Your task to perform on an android device: Add "corsair k70" to the cart on amazon Image 0: 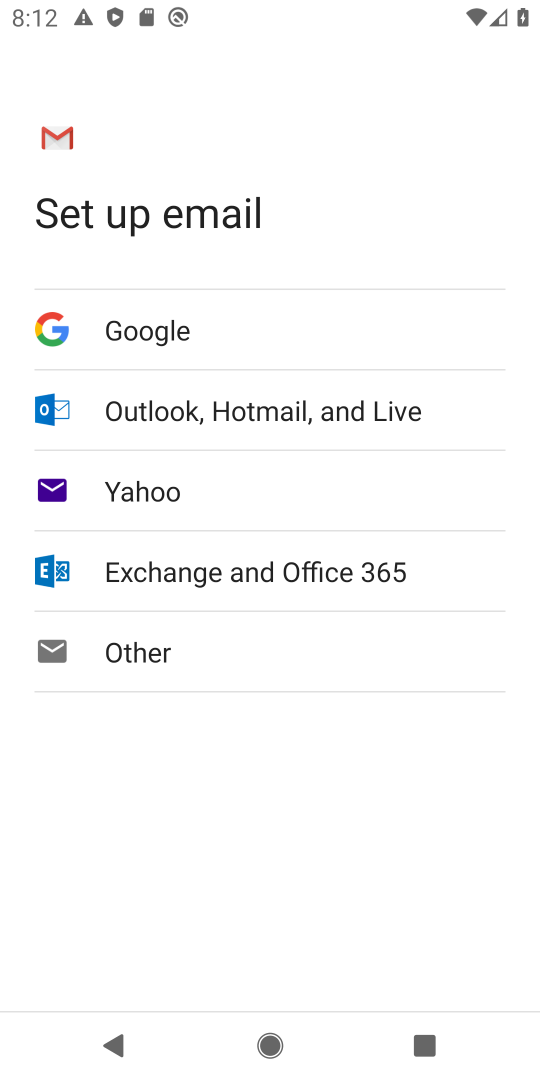
Step 0: press home button
Your task to perform on an android device: Add "corsair k70" to the cart on amazon Image 1: 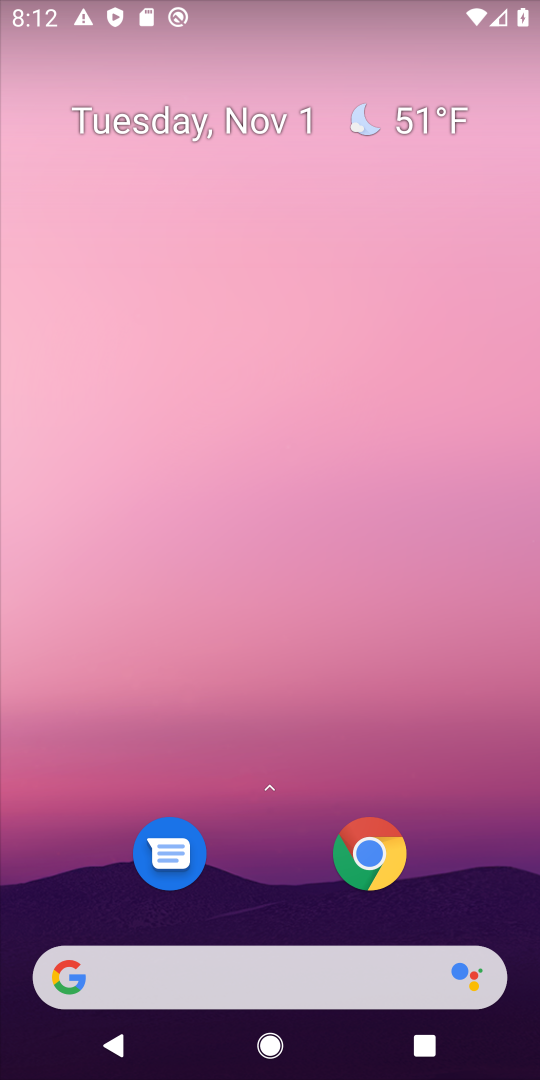
Step 1: click (296, 978)
Your task to perform on an android device: Add "corsair k70" to the cart on amazon Image 2: 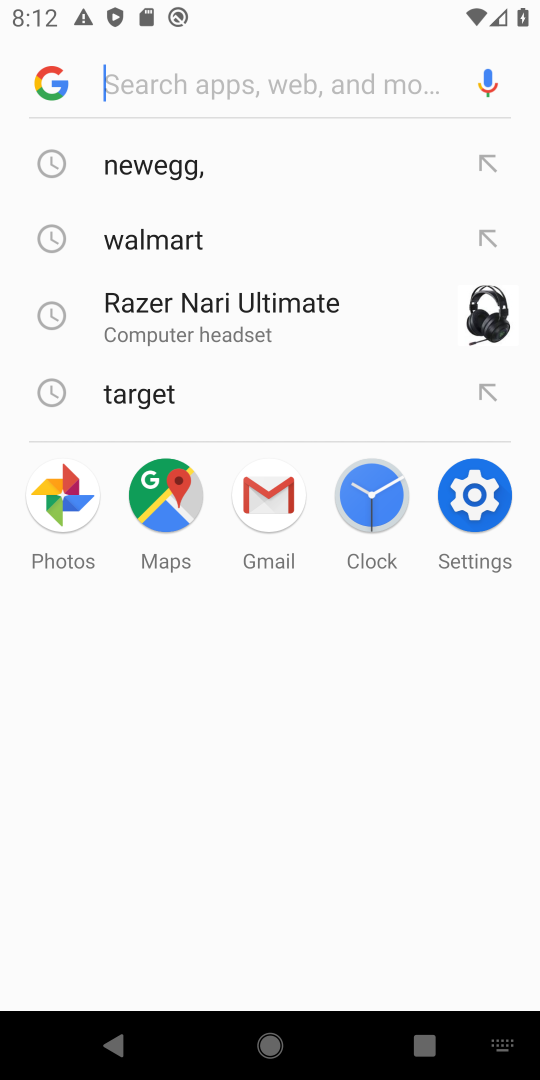
Step 2: type "amazon"
Your task to perform on an android device: Add "corsair k70" to the cart on amazon Image 3: 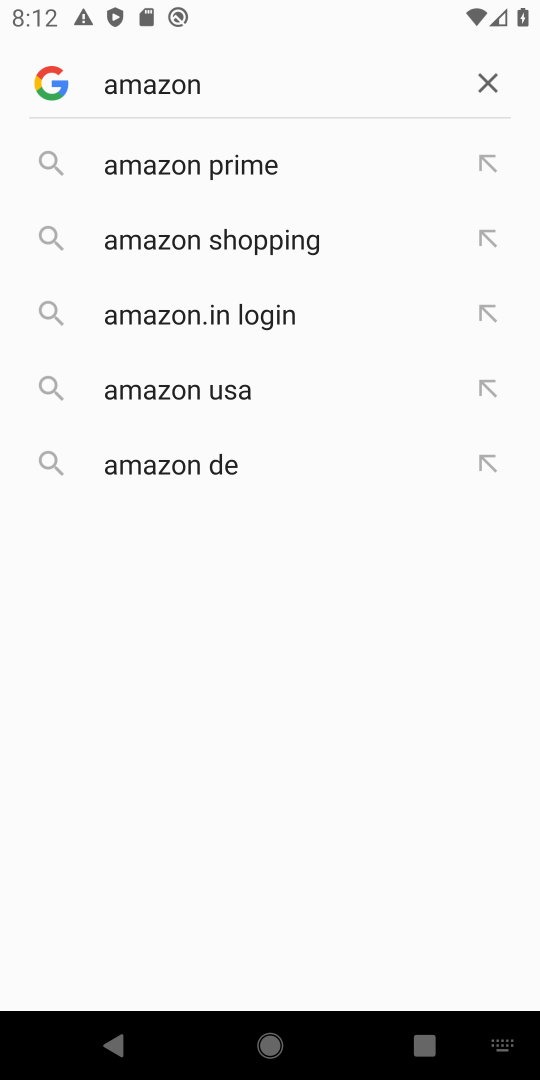
Step 3: click (240, 335)
Your task to perform on an android device: Add "corsair k70" to the cart on amazon Image 4: 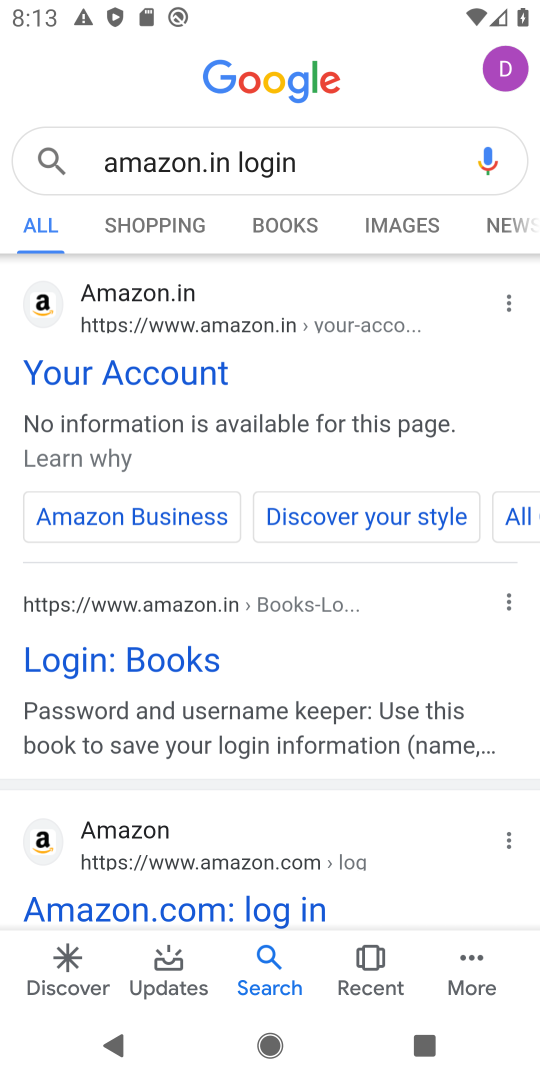
Step 4: click (185, 376)
Your task to perform on an android device: Add "corsair k70" to the cart on amazon Image 5: 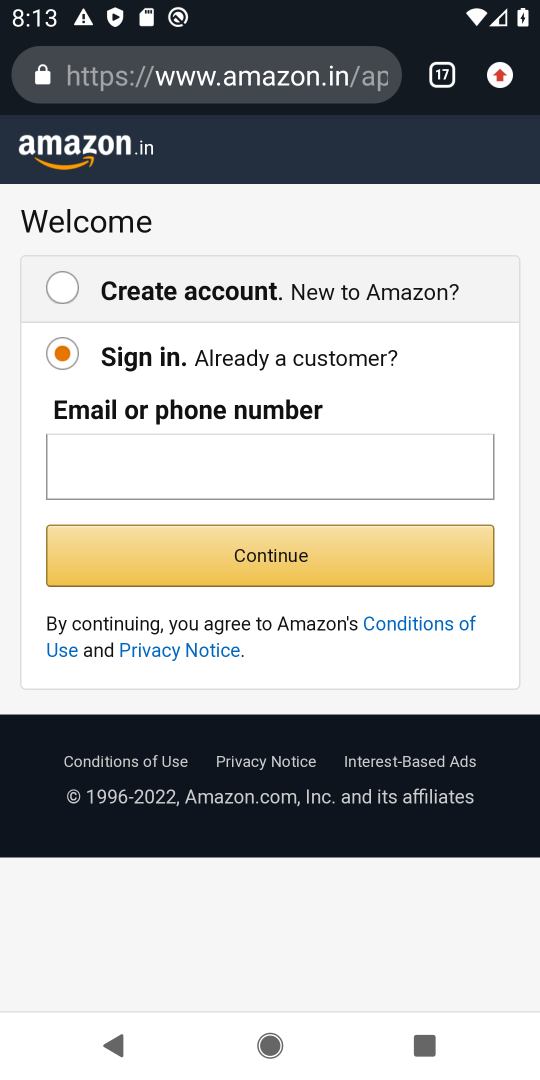
Step 5: click (61, 168)
Your task to perform on an android device: Add "corsair k70" to the cart on amazon Image 6: 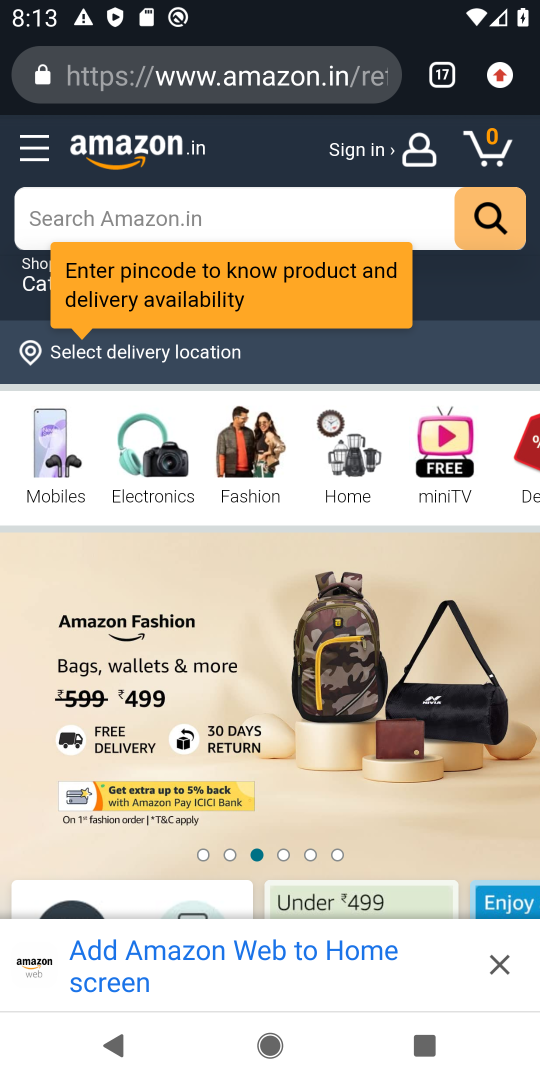
Step 6: click (99, 231)
Your task to perform on an android device: Add "corsair k70" to the cart on amazon Image 7: 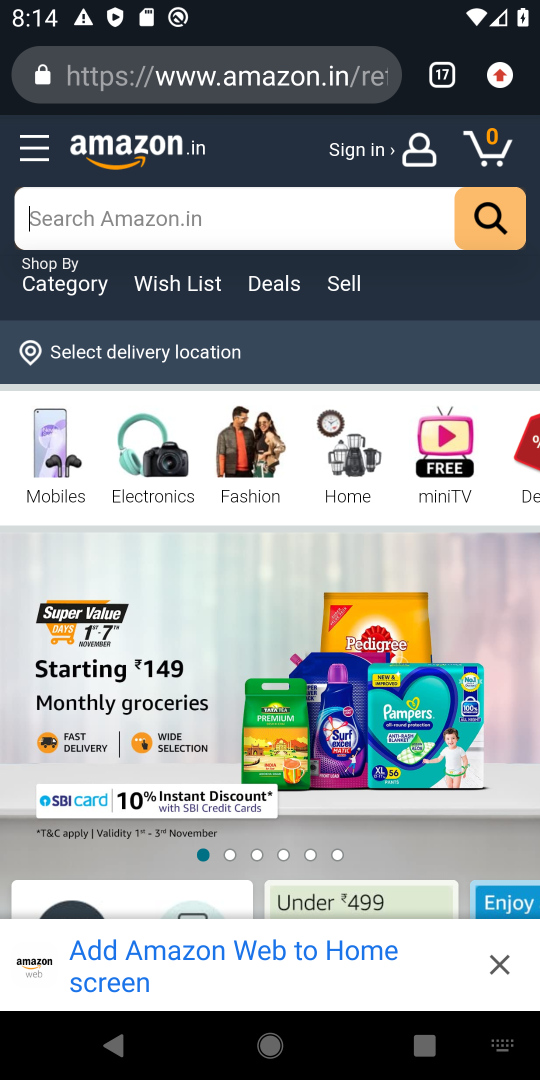
Step 7: type "corsair k70"
Your task to perform on an android device: Add "corsair k70" to the cart on amazon Image 8: 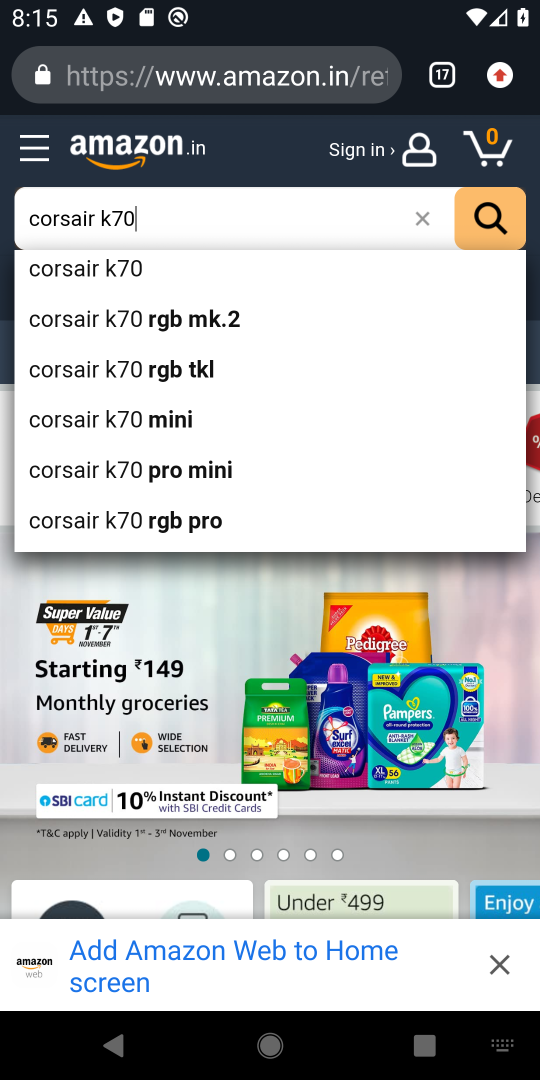
Step 8: click (504, 214)
Your task to perform on an android device: Add "corsair k70" to the cart on amazon Image 9: 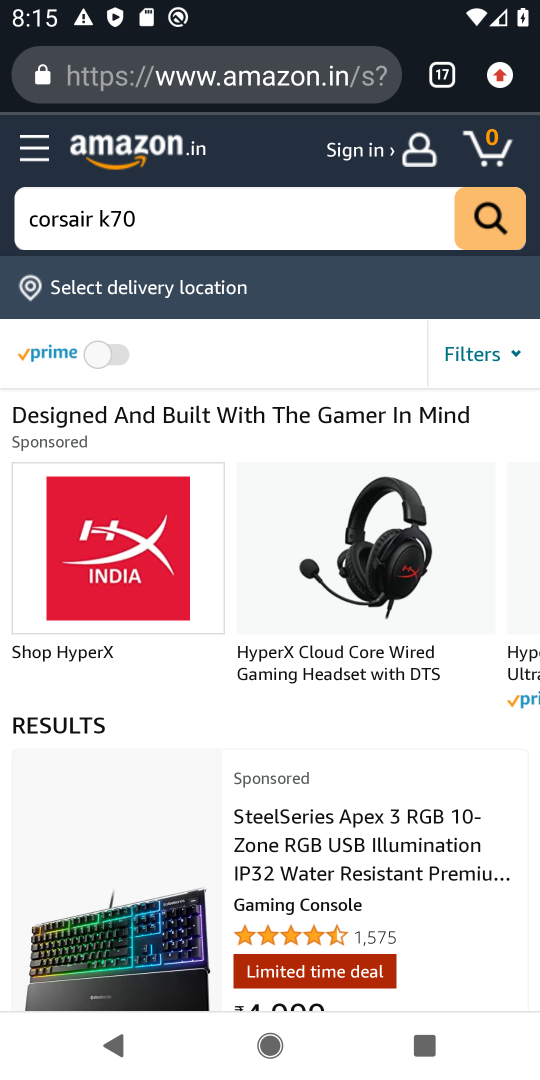
Step 9: task complete